Your task to perform on an android device: turn off data saver in the chrome app Image 0: 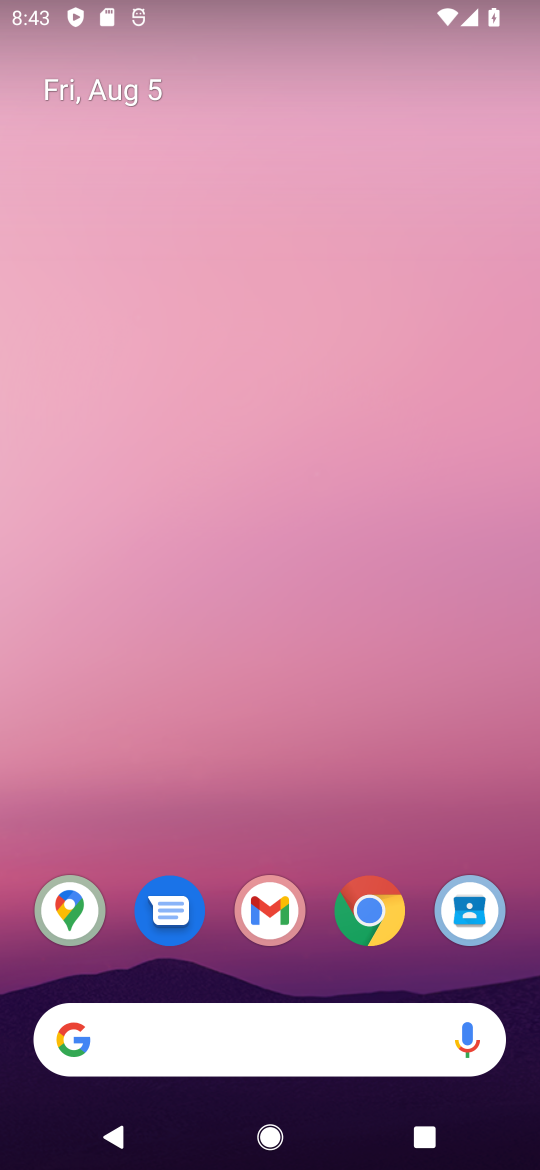
Step 0: click (367, 914)
Your task to perform on an android device: turn off data saver in the chrome app Image 1: 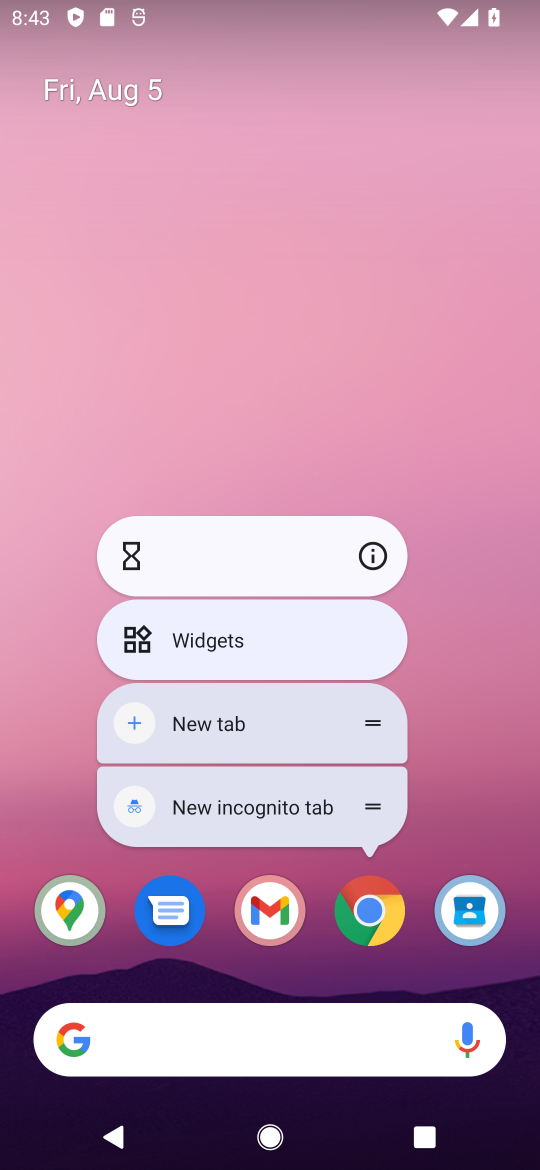
Step 1: click (367, 915)
Your task to perform on an android device: turn off data saver in the chrome app Image 2: 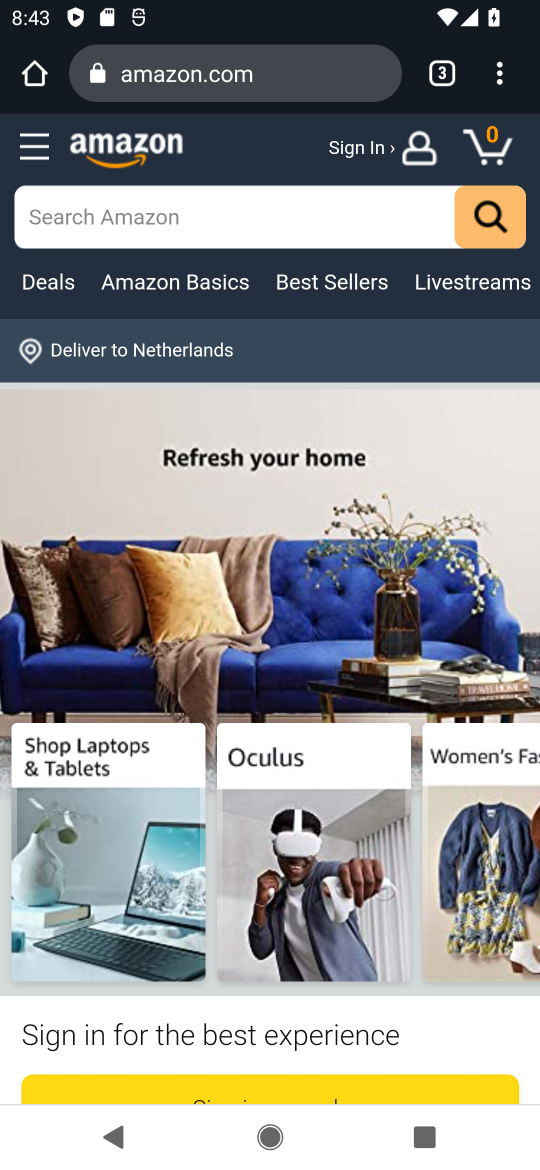
Step 2: drag from (503, 78) to (340, 967)
Your task to perform on an android device: turn off data saver in the chrome app Image 3: 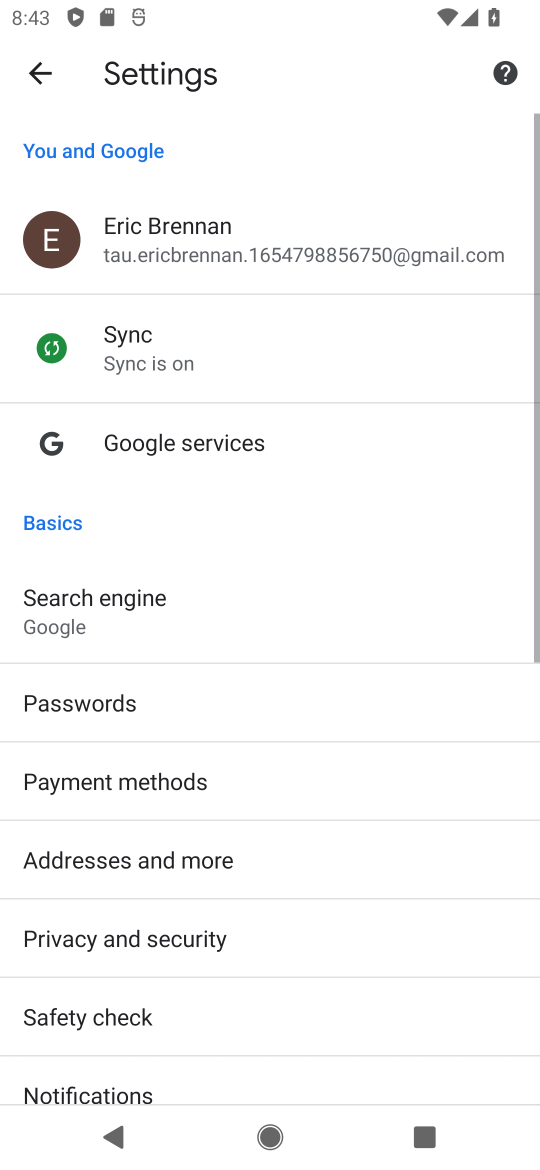
Step 3: drag from (247, 1028) to (152, 240)
Your task to perform on an android device: turn off data saver in the chrome app Image 4: 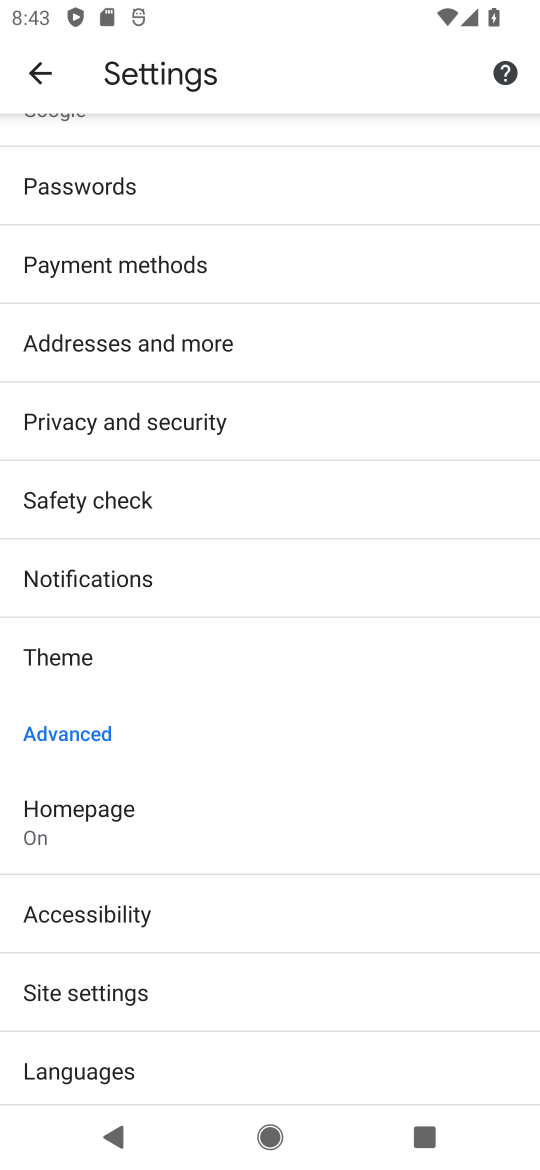
Step 4: drag from (200, 1016) to (252, 459)
Your task to perform on an android device: turn off data saver in the chrome app Image 5: 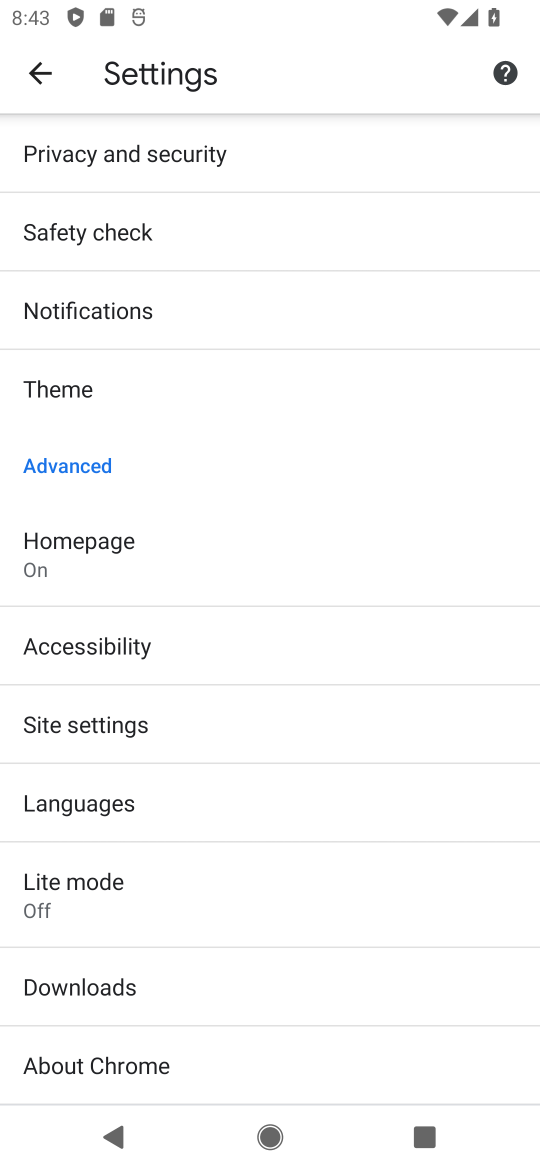
Step 5: click (130, 891)
Your task to perform on an android device: turn off data saver in the chrome app Image 6: 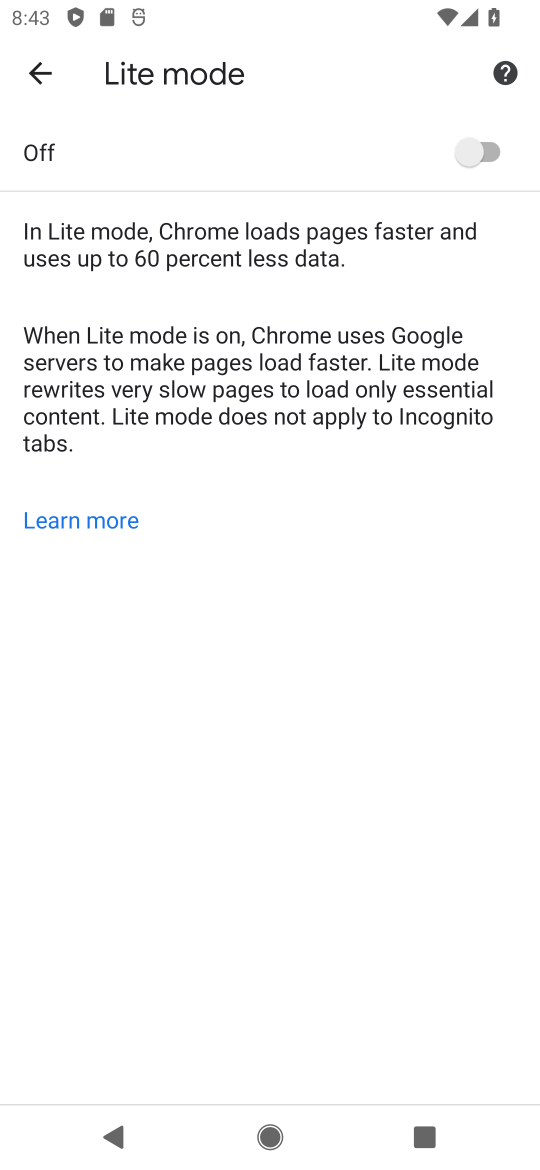
Step 6: task complete